Your task to perform on an android device: What's the weather? Image 0: 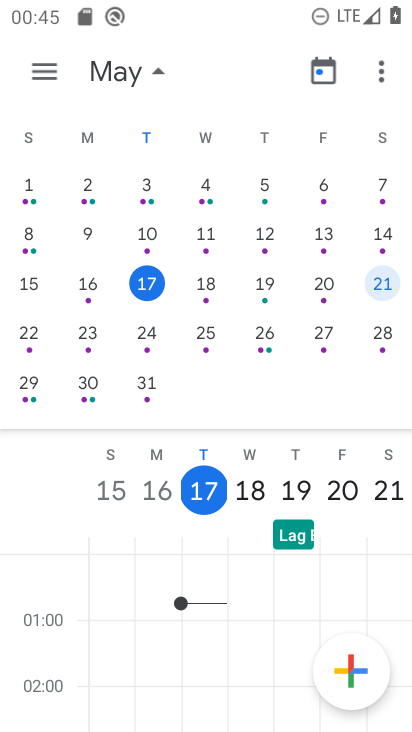
Step 0: press home button
Your task to perform on an android device: What's the weather? Image 1: 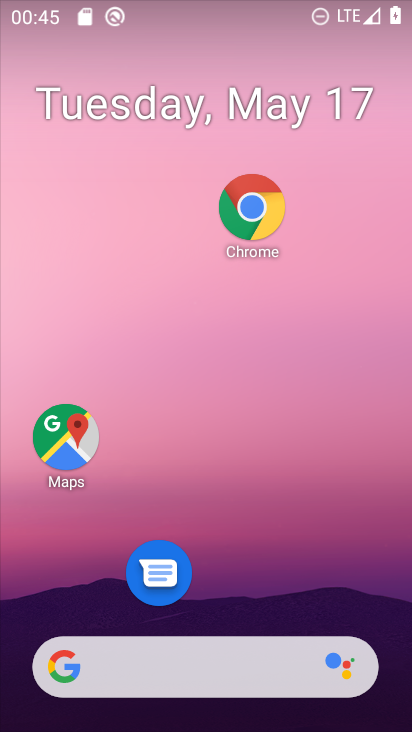
Step 1: drag from (82, 328) to (411, 279)
Your task to perform on an android device: What's the weather? Image 2: 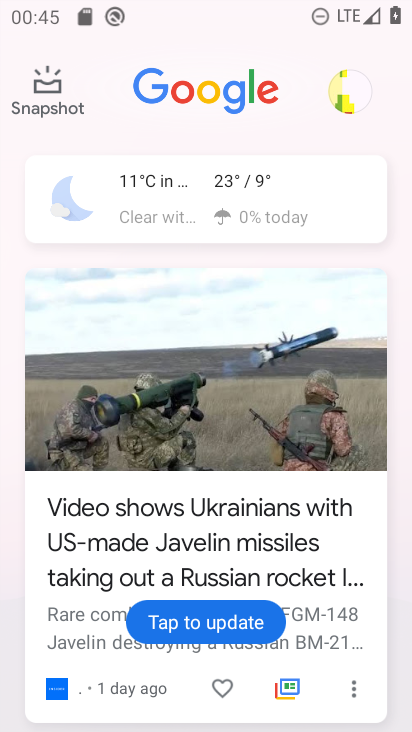
Step 2: click (217, 190)
Your task to perform on an android device: What's the weather? Image 3: 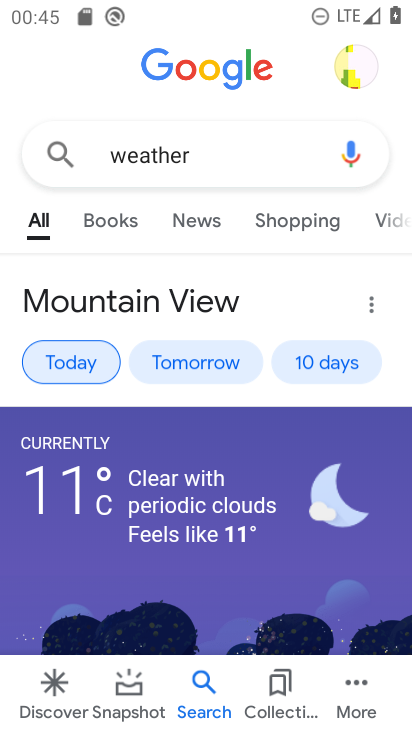
Step 3: task complete